Your task to perform on an android device: all mails in gmail Image 0: 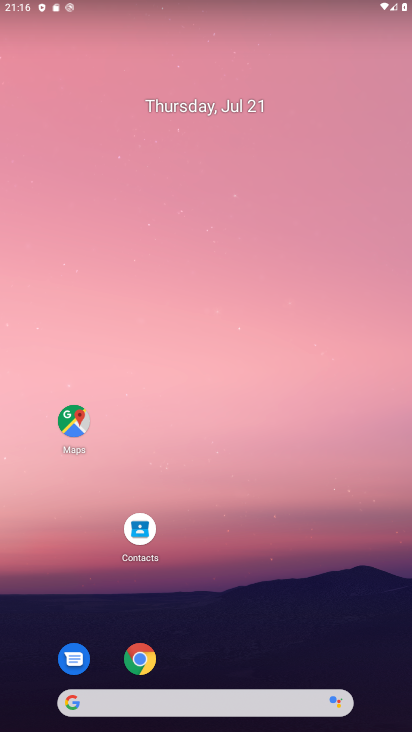
Step 0: drag from (254, 678) to (235, 44)
Your task to perform on an android device: all mails in gmail Image 1: 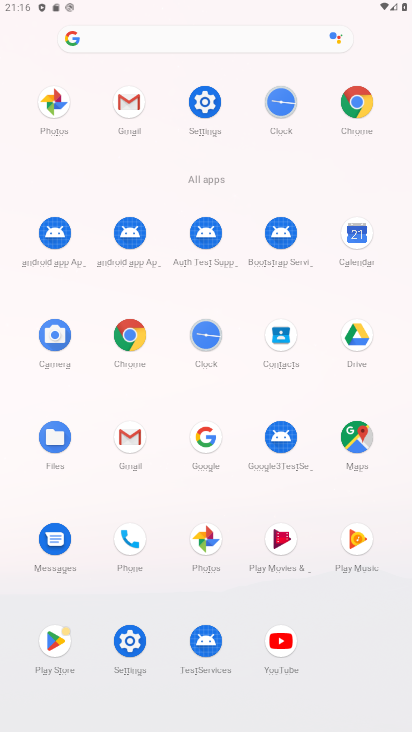
Step 1: click (125, 442)
Your task to perform on an android device: all mails in gmail Image 2: 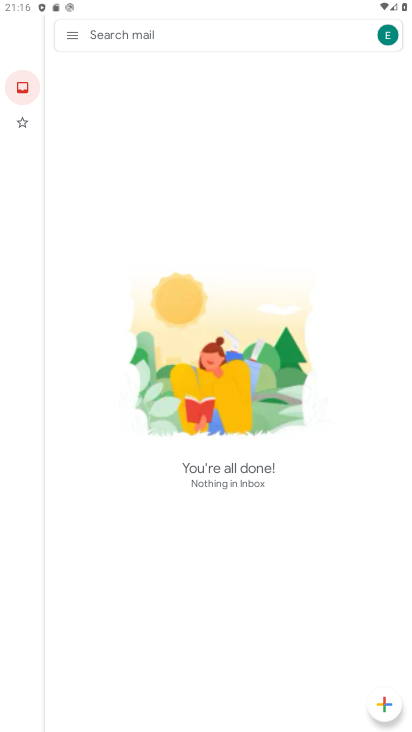
Step 2: click (73, 33)
Your task to perform on an android device: all mails in gmail Image 3: 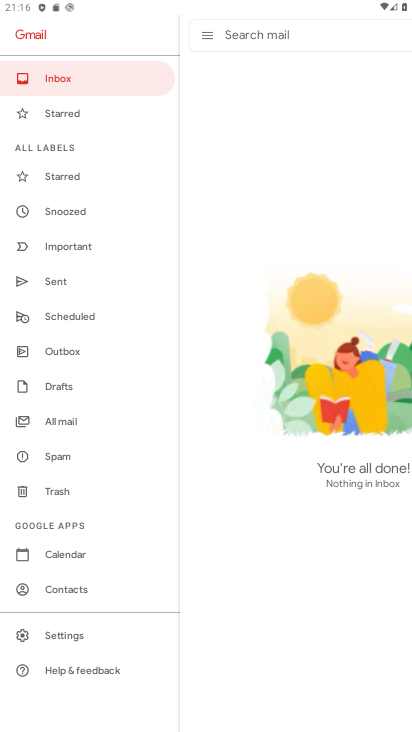
Step 3: click (83, 422)
Your task to perform on an android device: all mails in gmail Image 4: 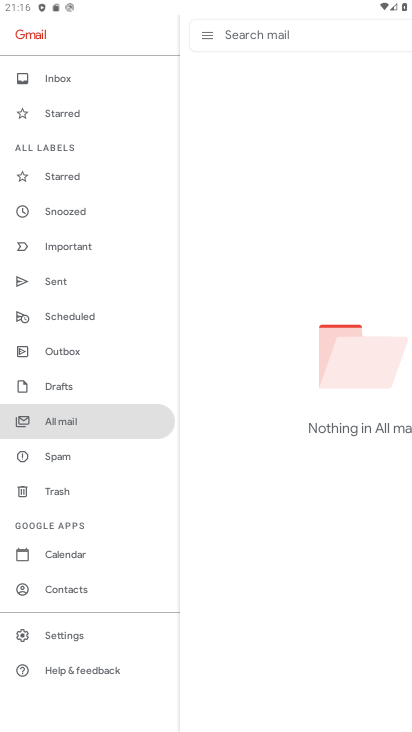
Step 4: task complete